Your task to perform on an android device: open app "Roku - Official Remote Control" Image 0: 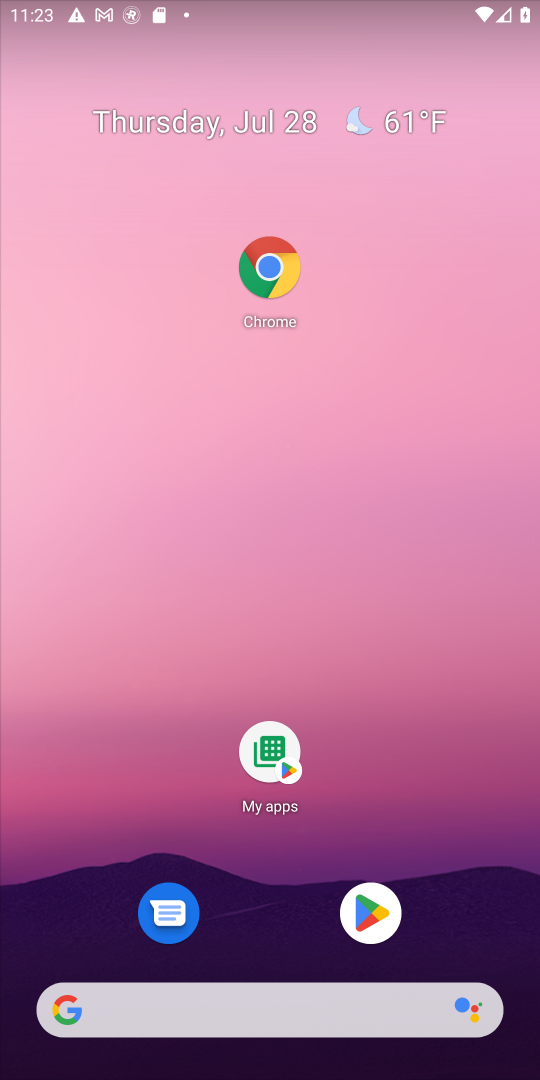
Step 0: press home button
Your task to perform on an android device: open app "Roku - Official Remote Control" Image 1: 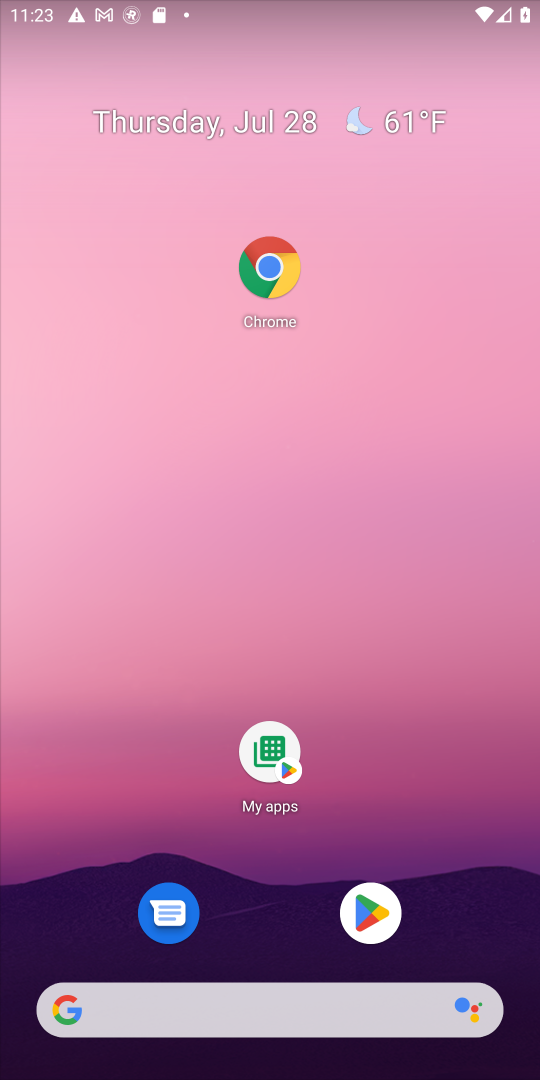
Step 1: click (374, 916)
Your task to perform on an android device: open app "Roku - Official Remote Control" Image 2: 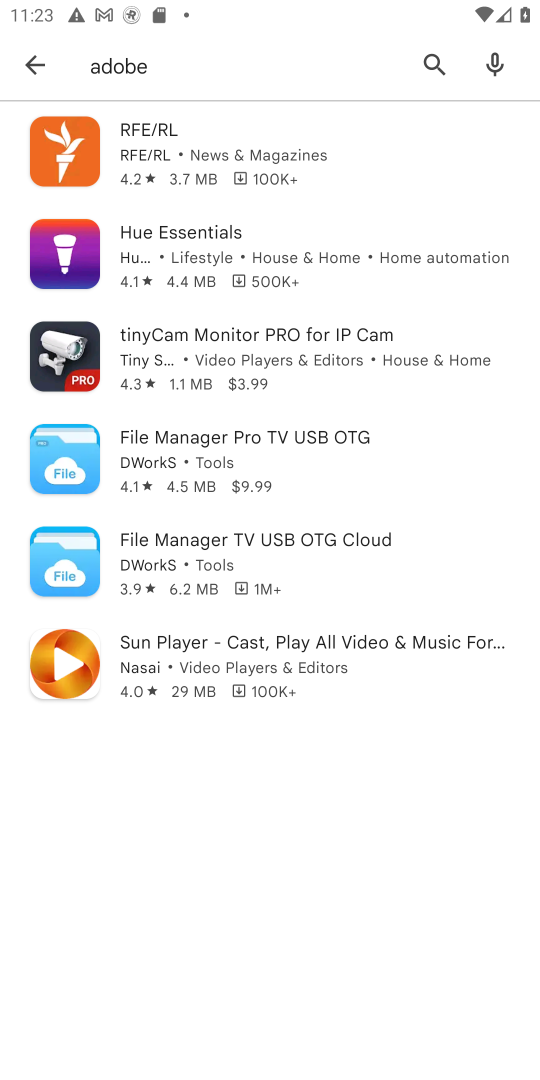
Step 2: click (430, 56)
Your task to perform on an android device: open app "Roku - Official Remote Control" Image 3: 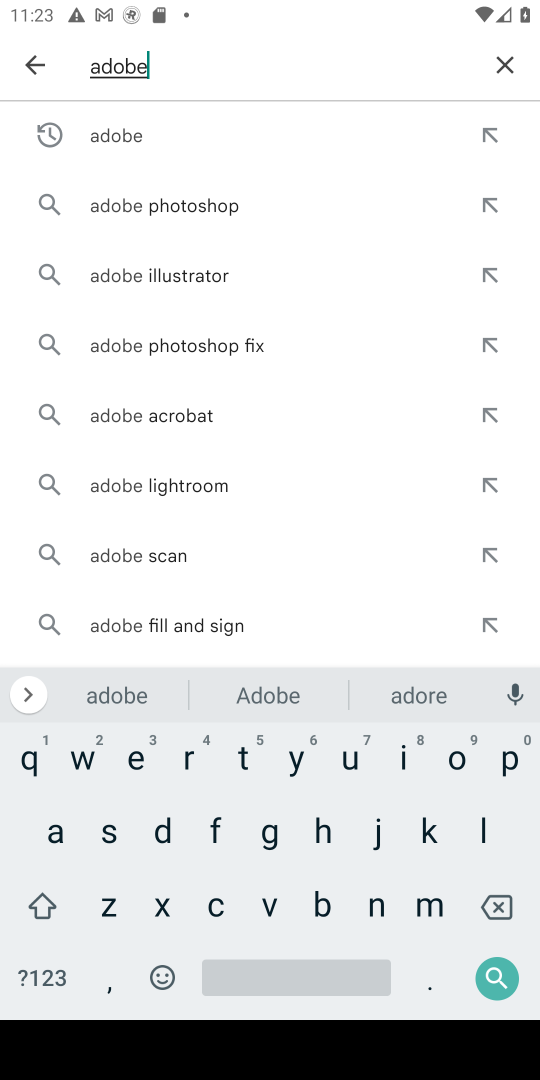
Step 3: click (500, 69)
Your task to perform on an android device: open app "Roku - Official Remote Control" Image 4: 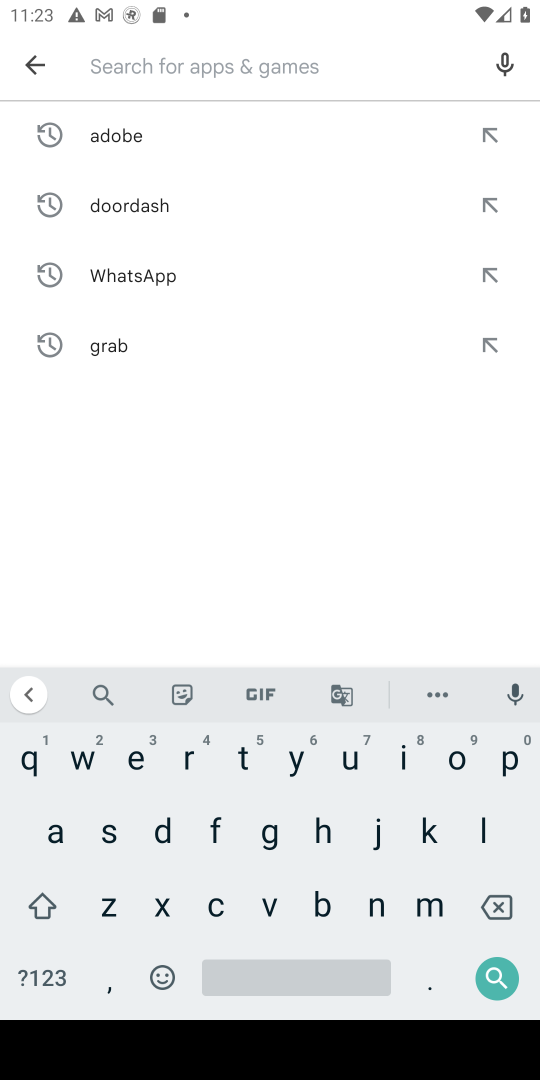
Step 4: click (187, 764)
Your task to perform on an android device: open app "Roku - Official Remote Control" Image 5: 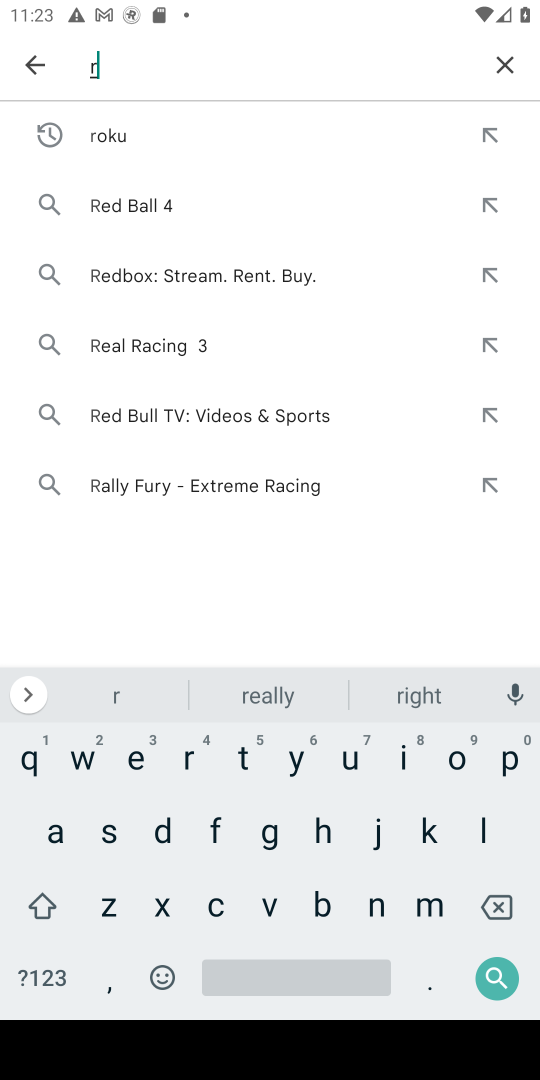
Step 5: click (460, 771)
Your task to perform on an android device: open app "Roku - Official Remote Control" Image 6: 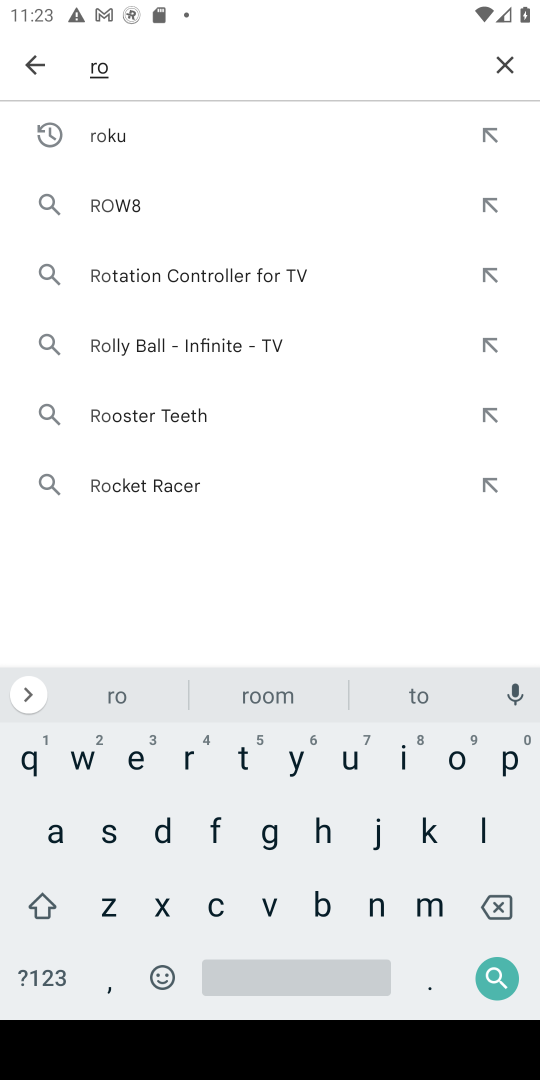
Step 6: click (426, 838)
Your task to perform on an android device: open app "Roku - Official Remote Control" Image 7: 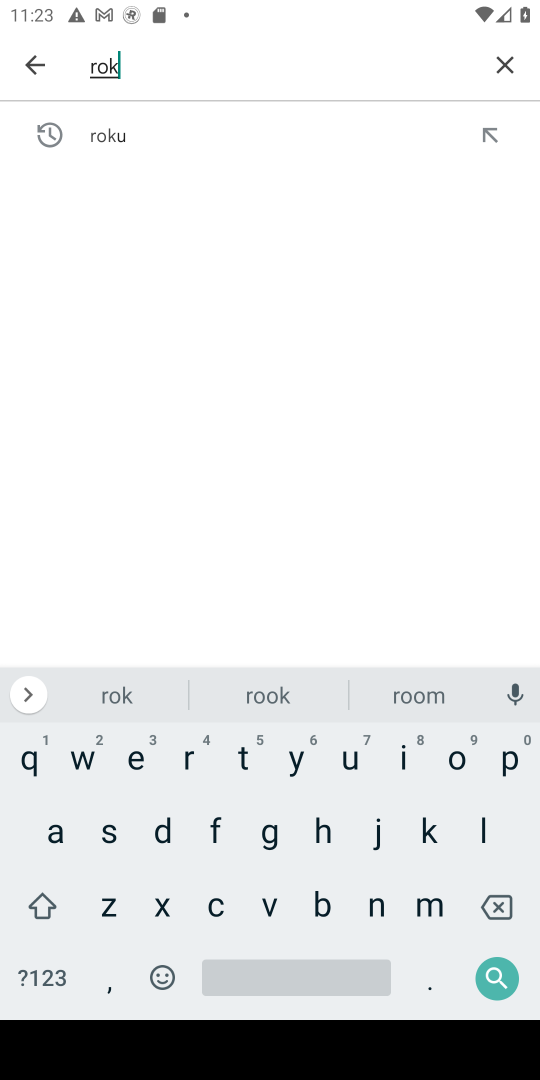
Step 7: click (351, 769)
Your task to perform on an android device: open app "Roku - Official Remote Control" Image 8: 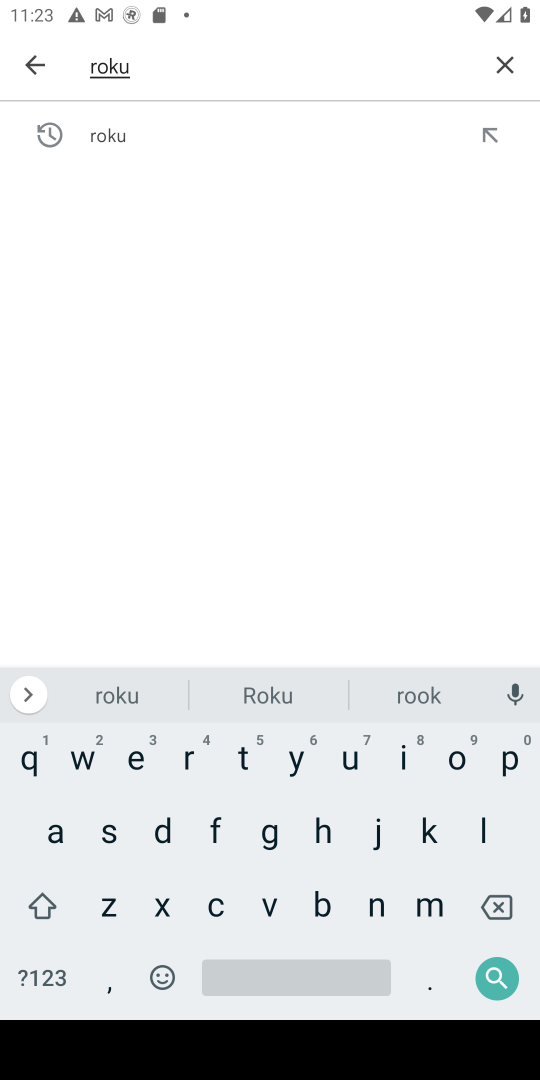
Step 8: click (165, 149)
Your task to perform on an android device: open app "Roku - Official Remote Control" Image 9: 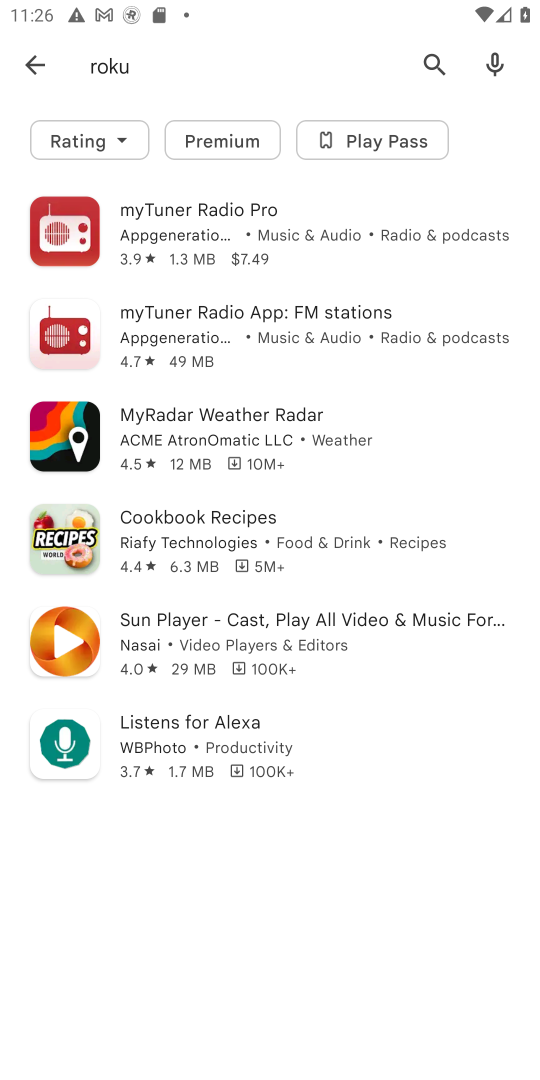
Step 9: task complete